Your task to perform on an android device: open chrome and create a bookmark for the current page Image 0: 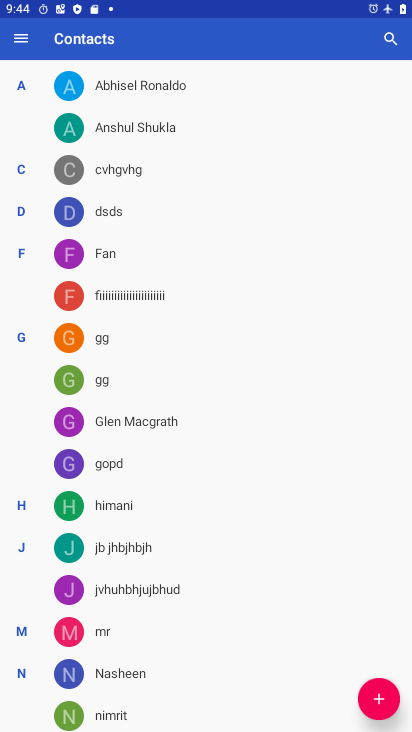
Step 0: press home button
Your task to perform on an android device: open chrome and create a bookmark for the current page Image 1: 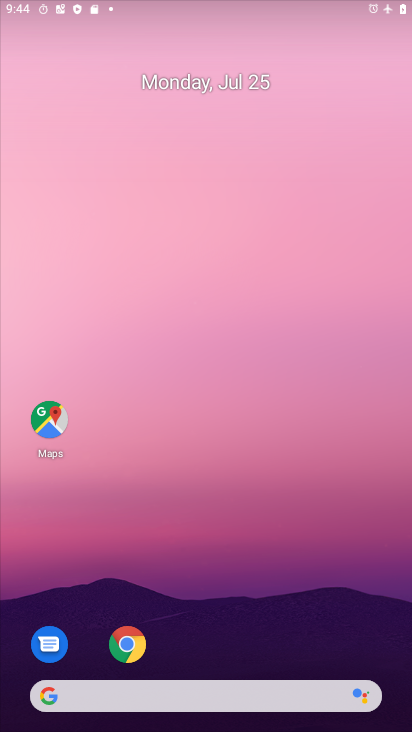
Step 1: drag from (263, 615) to (243, 119)
Your task to perform on an android device: open chrome and create a bookmark for the current page Image 2: 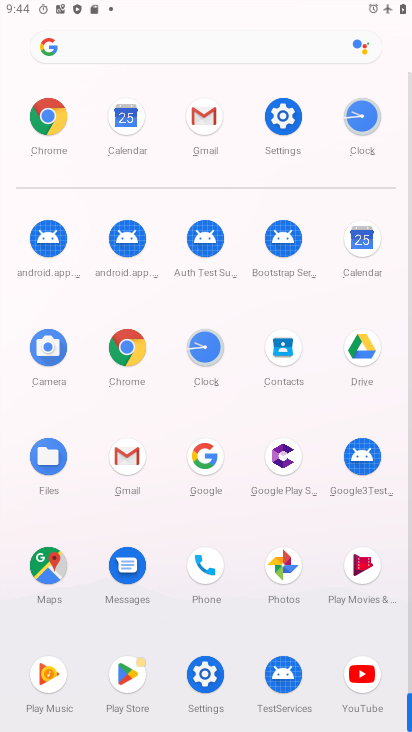
Step 2: click (116, 345)
Your task to perform on an android device: open chrome and create a bookmark for the current page Image 3: 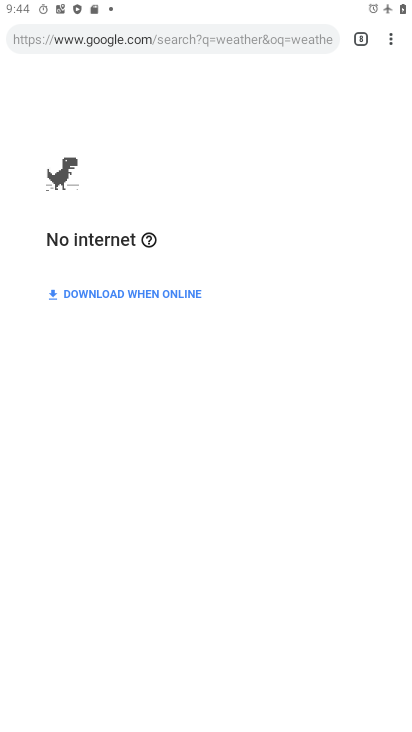
Step 3: click (390, 38)
Your task to perform on an android device: open chrome and create a bookmark for the current page Image 4: 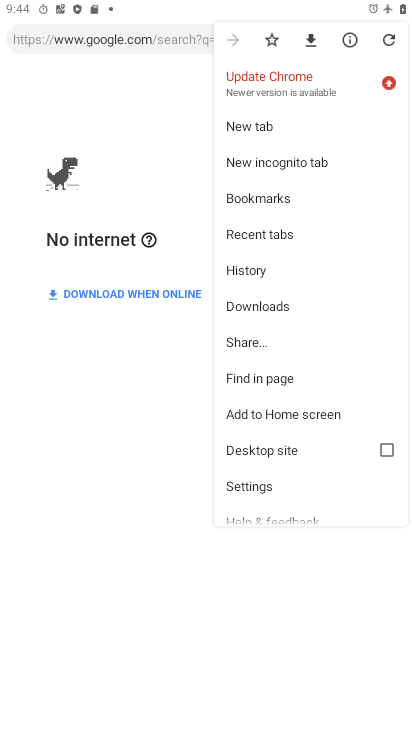
Step 4: click (143, 252)
Your task to perform on an android device: open chrome and create a bookmark for the current page Image 5: 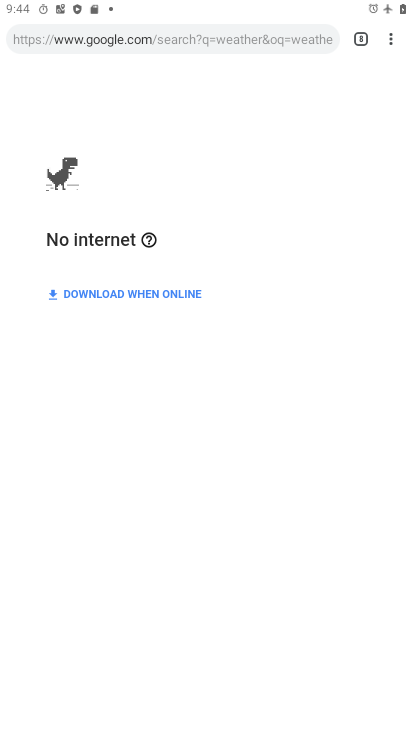
Step 5: click (385, 41)
Your task to perform on an android device: open chrome and create a bookmark for the current page Image 6: 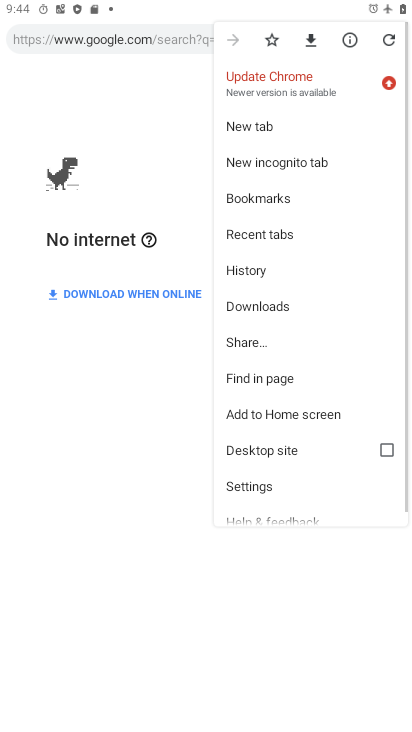
Step 6: click (269, 42)
Your task to perform on an android device: open chrome and create a bookmark for the current page Image 7: 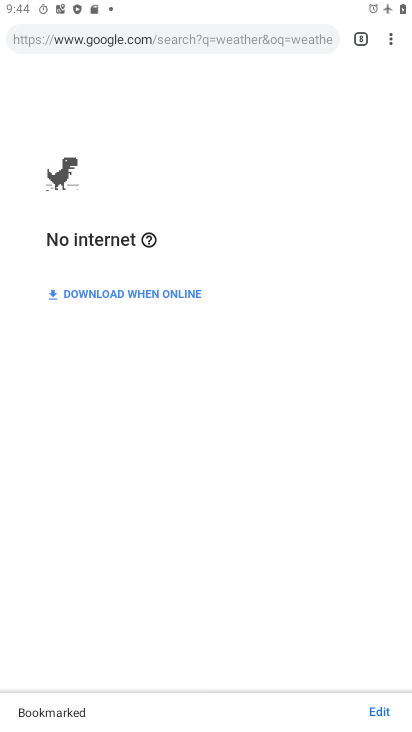
Step 7: task complete